Your task to perform on an android device: turn smart compose on in the gmail app Image 0: 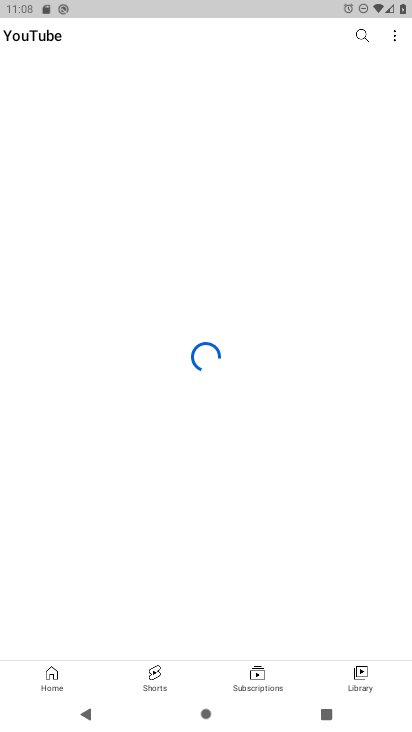
Step 0: press home button
Your task to perform on an android device: turn smart compose on in the gmail app Image 1: 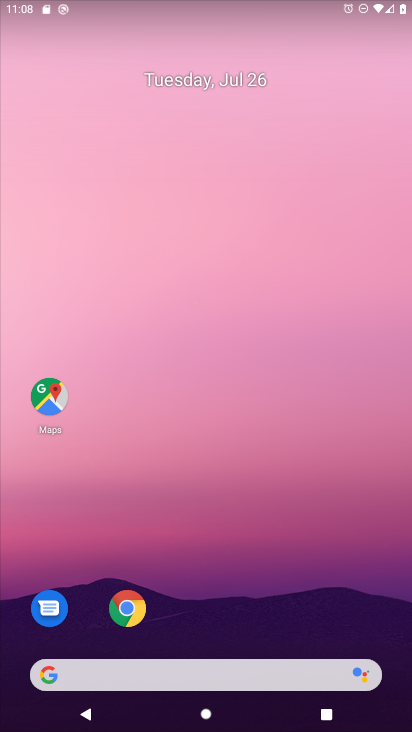
Step 1: drag from (294, 594) to (340, 118)
Your task to perform on an android device: turn smart compose on in the gmail app Image 2: 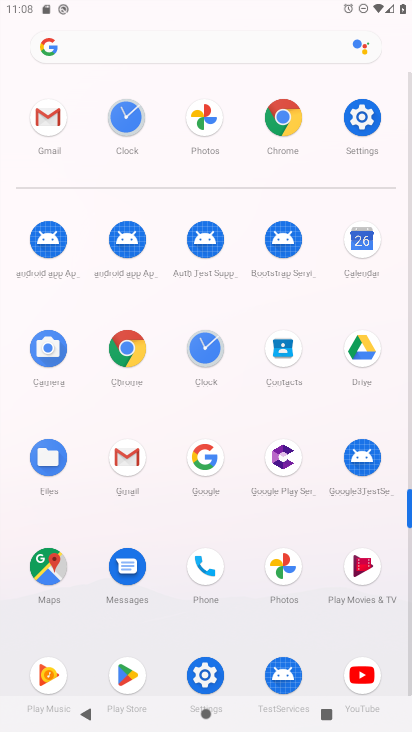
Step 2: click (46, 116)
Your task to perform on an android device: turn smart compose on in the gmail app Image 3: 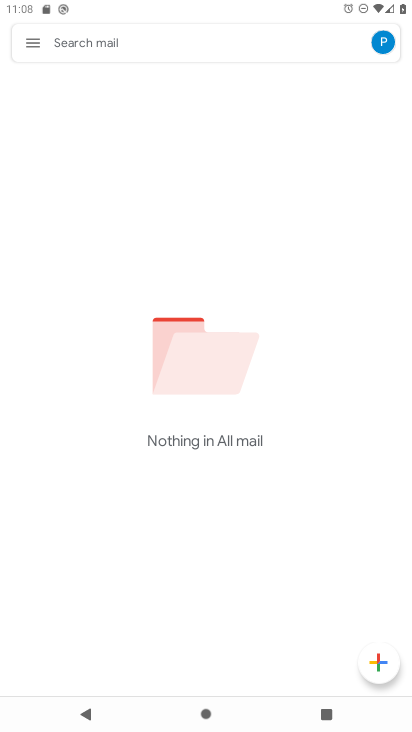
Step 3: click (34, 34)
Your task to perform on an android device: turn smart compose on in the gmail app Image 4: 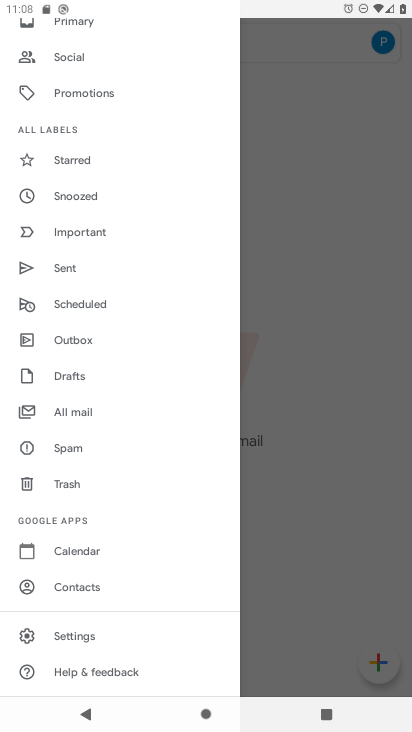
Step 4: click (87, 635)
Your task to perform on an android device: turn smart compose on in the gmail app Image 5: 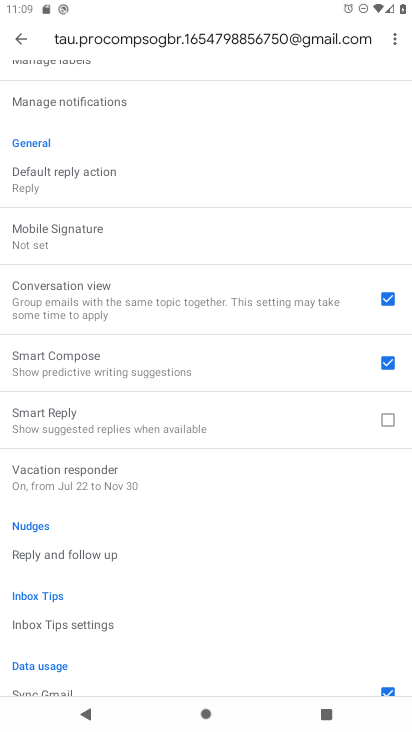
Step 5: task complete